Your task to perform on an android device: turn notification dots off Image 0: 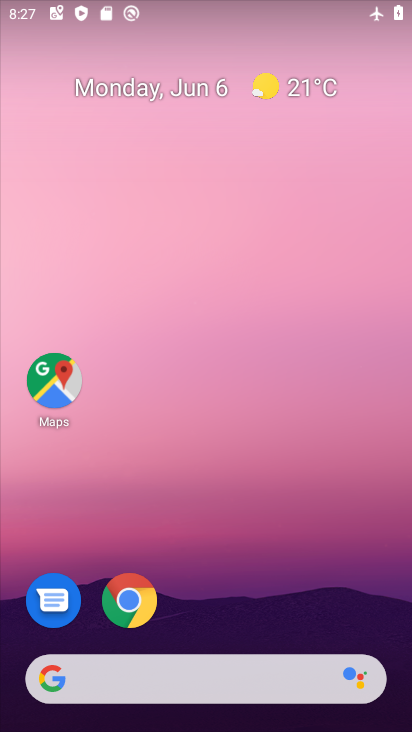
Step 0: drag from (376, 625) to (313, 86)
Your task to perform on an android device: turn notification dots off Image 1: 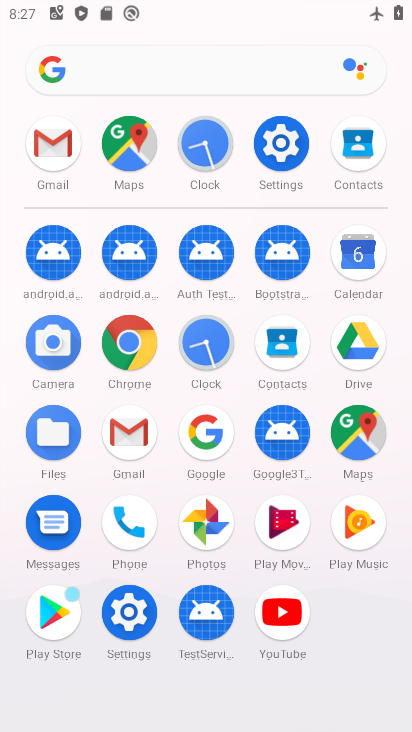
Step 1: click (130, 612)
Your task to perform on an android device: turn notification dots off Image 2: 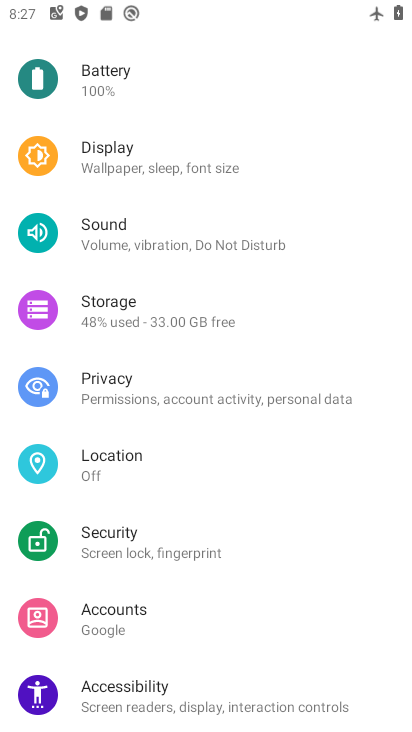
Step 2: drag from (371, 122) to (351, 450)
Your task to perform on an android device: turn notification dots off Image 3: 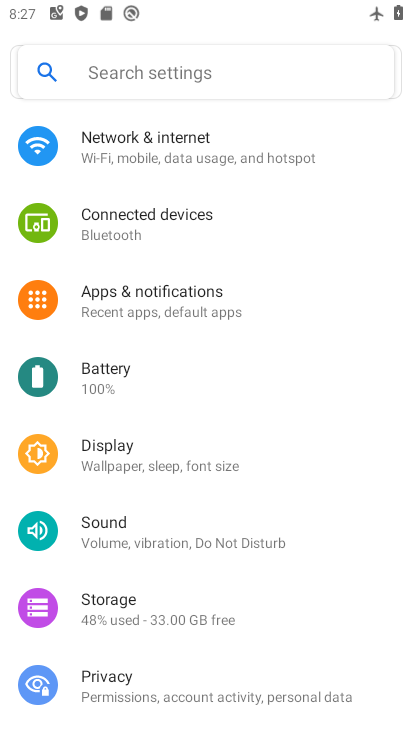
Step 3: click (113, 288)
Your task to perform on an android device: turn notification dots off Image 4: 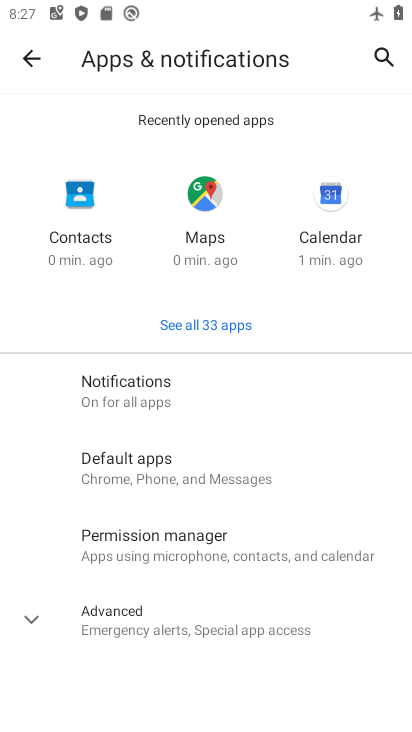
Step 4: click (117, 400)
Your task to perform on an android device: turn notification dots off Image 5: 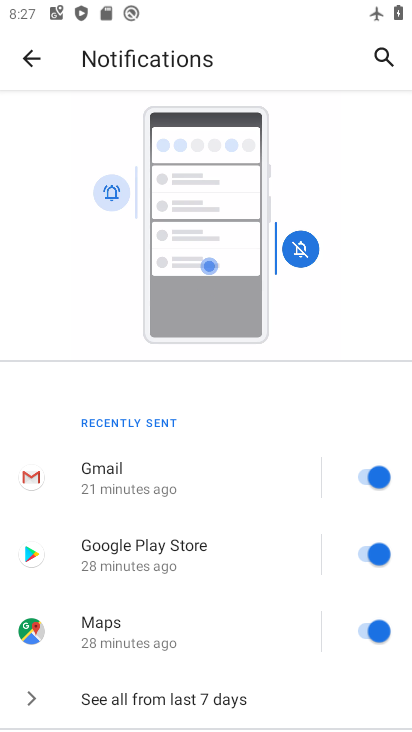
Step 5: drag from (315, 677) to (274, 213)
Your task to perform on an android device: turn notification dots off Image 6: 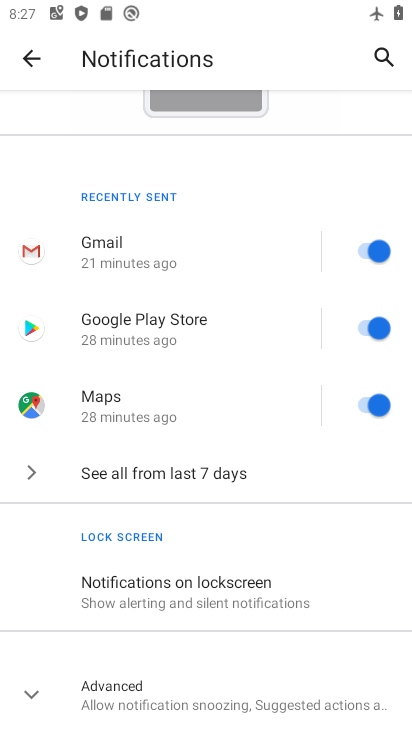
Step 6: click (25, 689)
Your task to perform on an android device: turn notification dots off Image 7: 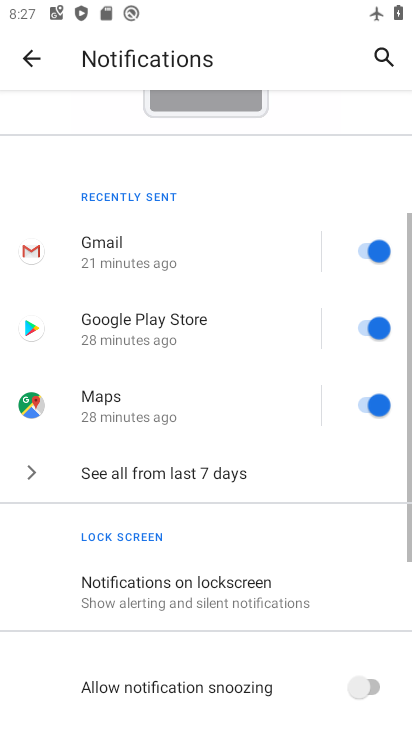
Step 7: drag from (321, 669) to (293, 256)
Your task to perform on an android device: turn notification dots off Image 8: 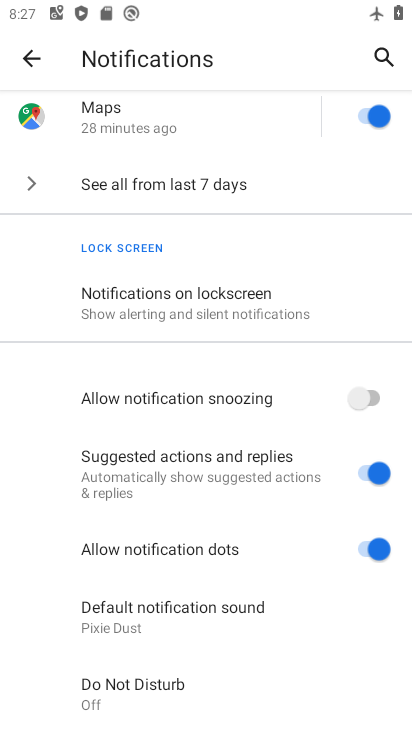
Step 8: click (362, 547)
Your task to perform on an android device: turn notification dots off Image 9: 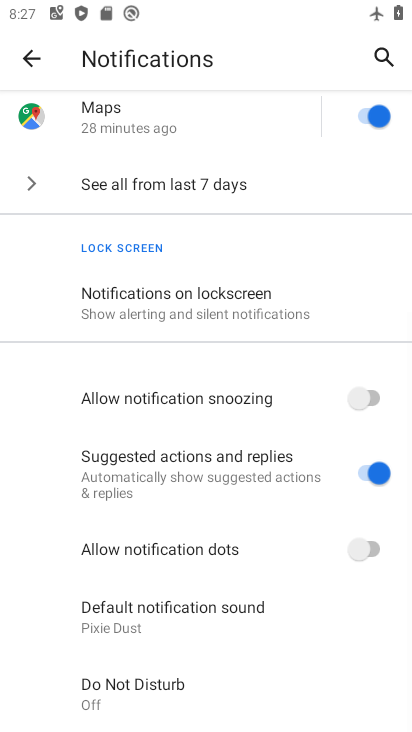
Step 9: task complete